Your task to perform on an android device: Is it going to rain today? Image 0: 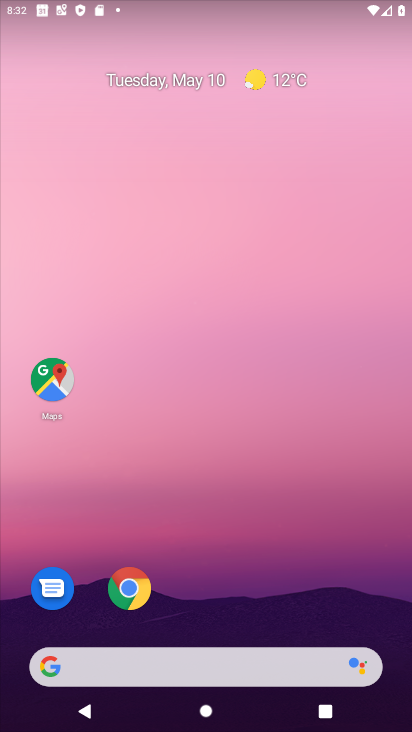
Step 0: click (311, 87)
Your task to perform on an android device: Is it going to rain today? Image 1: 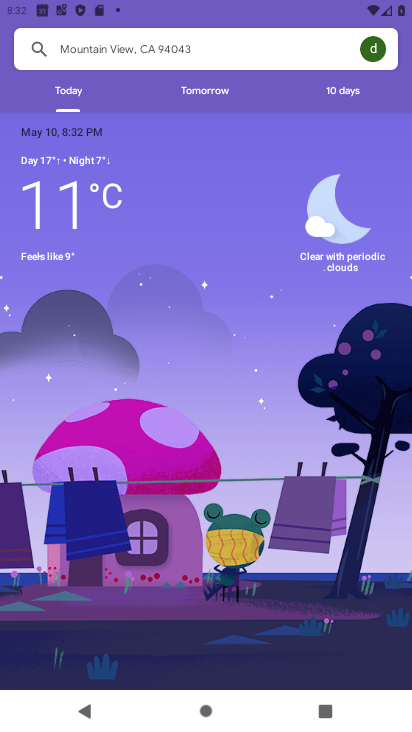
Step 1: task complete